Your task to perform on an android device: turn on data saver in the chrome app Image 0: 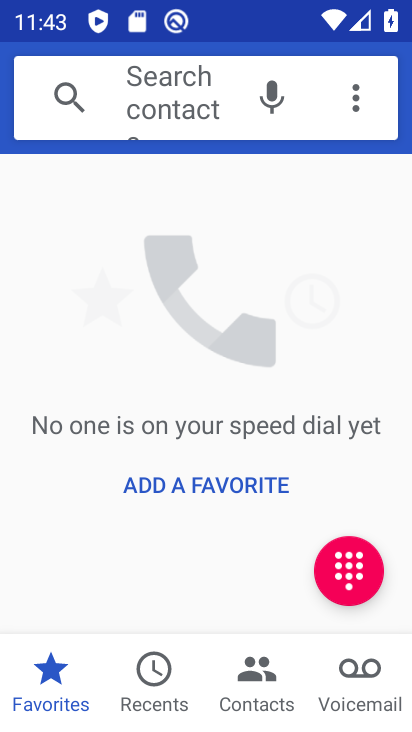
Step 0: click (284, 525)
Your task to perform on an android device: turn on data saver in the chrome app Image 1: 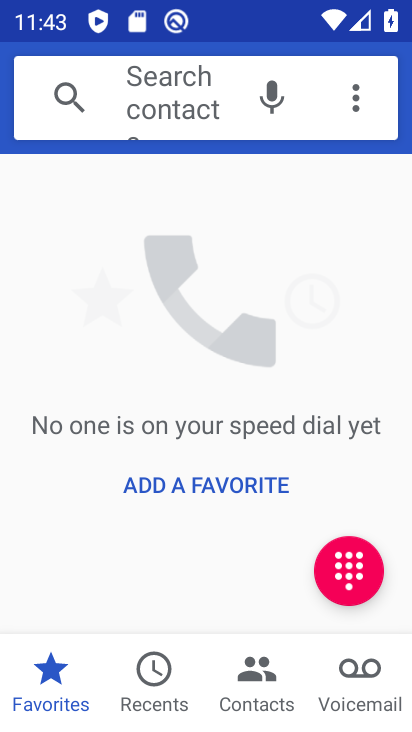
Step 1: press home button
Your task to perform on an android device: turn on data saver in the chrome app Image 2: 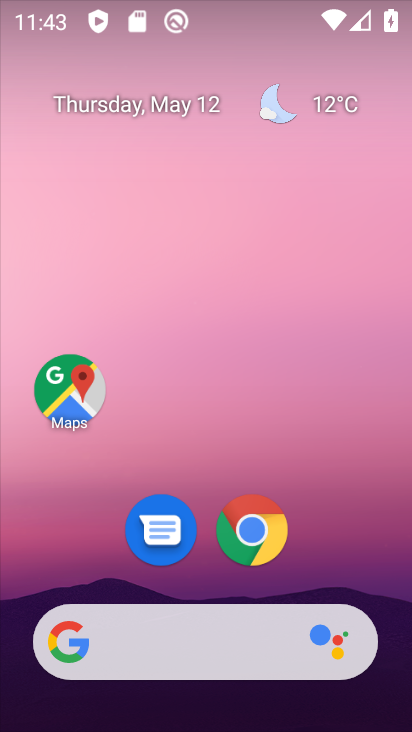
Step 2: click (249, 527)
Your task to perform on an android device: turn on data saver in the chrome app Image 3: 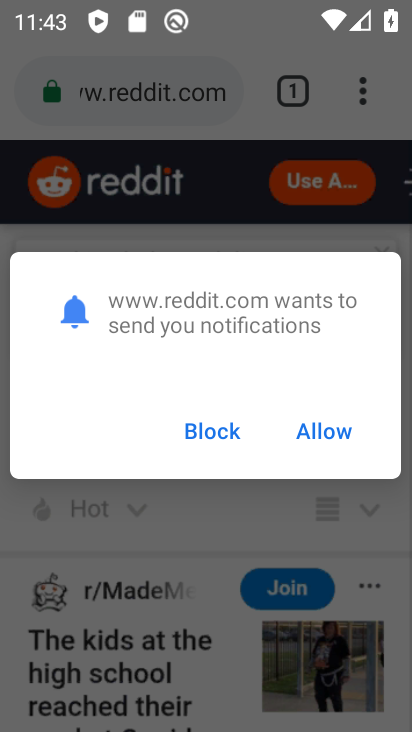
Step 3: click (343, 432)
Your task to perform on an android device: turn on data saver in the chrome app Image 4: 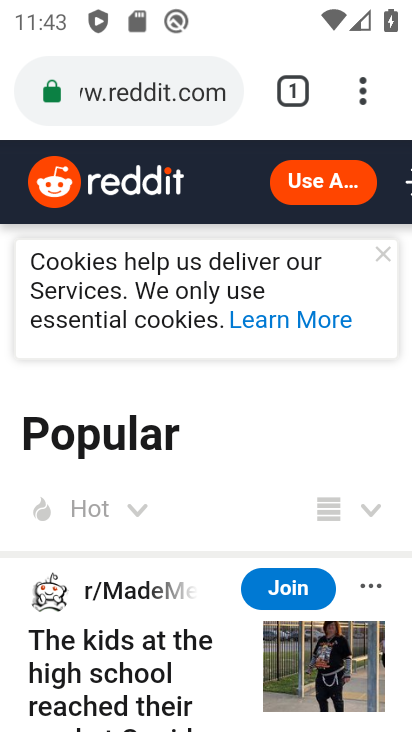
Step 4: click (369, 104)
Your task to perform on an android device: turn on data saver in the chrome app Image 5: 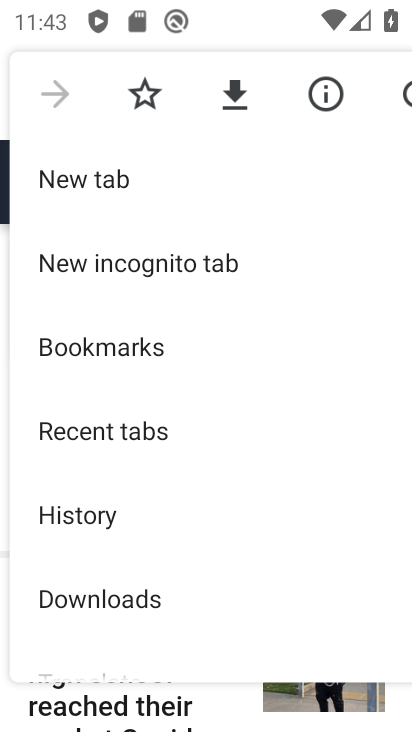
Step 5: drag from (258, 590) to (220, 221)
Your task to perform on an android device: turn on data saver in the chrome app Image 6: 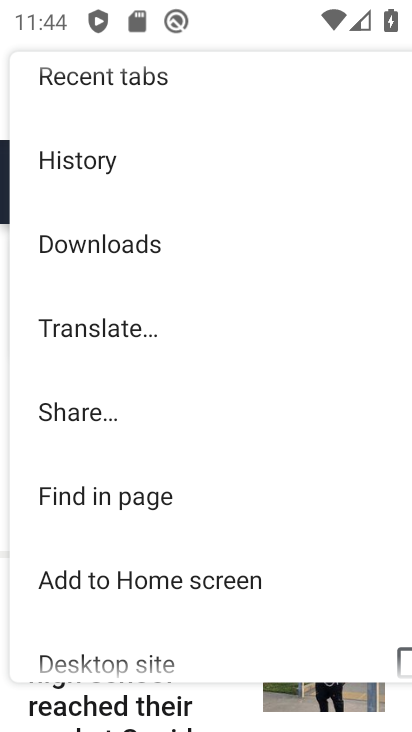
Step 6: drag from (228, 561) to (217, 126)
Your task to perform on an android device: turn on data saver in the chrome app Image 7: 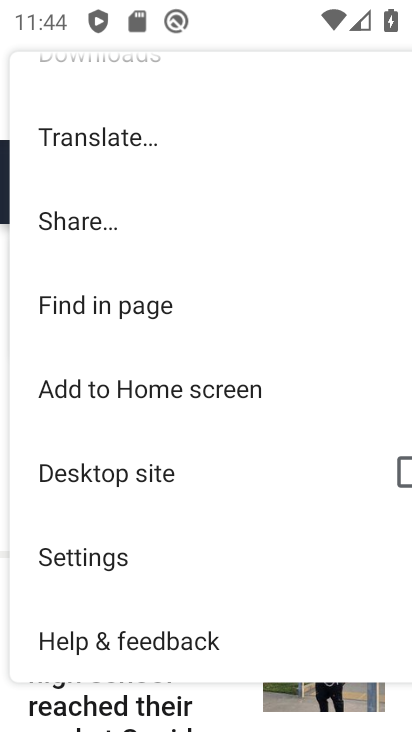
Step 7: click (98, 566)
Your task to perform on an android device: turn on data saver in the chrome app Image 8: 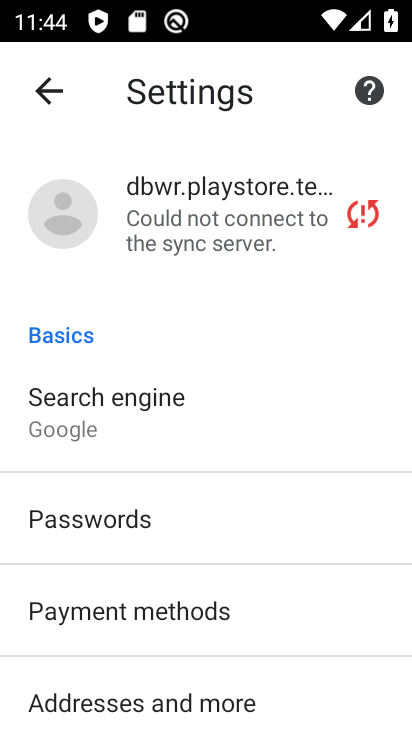
Step 8: drag from (304, 638) to (220, 220)
Your task to perform on an android device: turn on data saver in the chrome app Image 9: 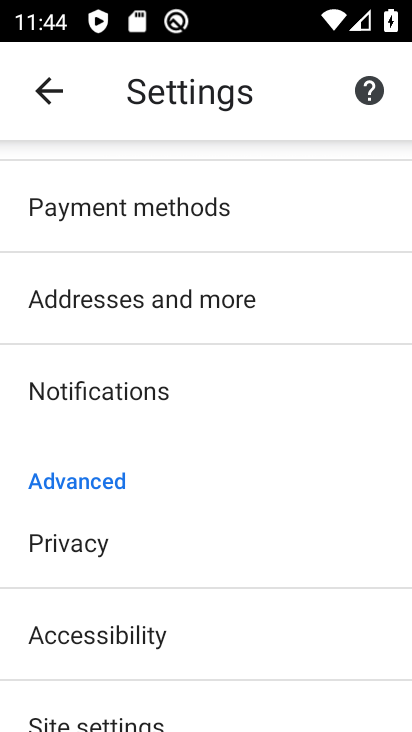
Step 9: drag from (266, 501) to (207, 230)
Your task to perform on an android device: turn on data saver in the chrome app Image 10: 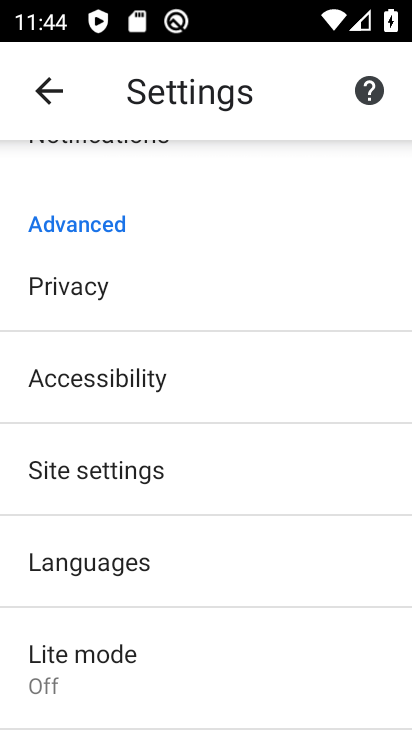
Step 10: drag from (269, 645) to (223, 347)
Your task to perform on an android device: turn on data saver in the chrome app Image 11: 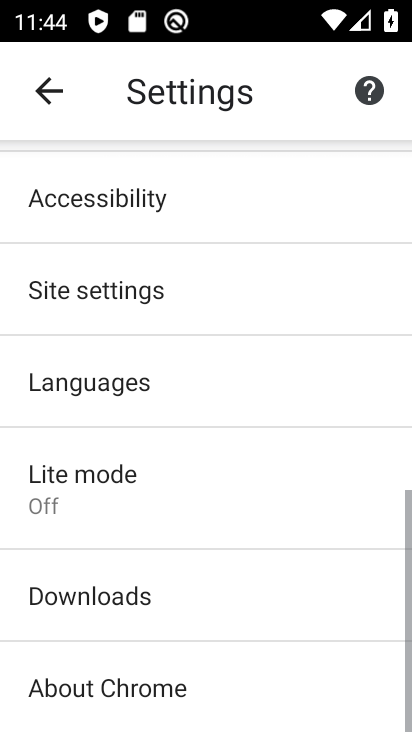
Step 11: click (185, 490)
Your task to perform on an android device: turn on data saver in the chrome app Image 12: 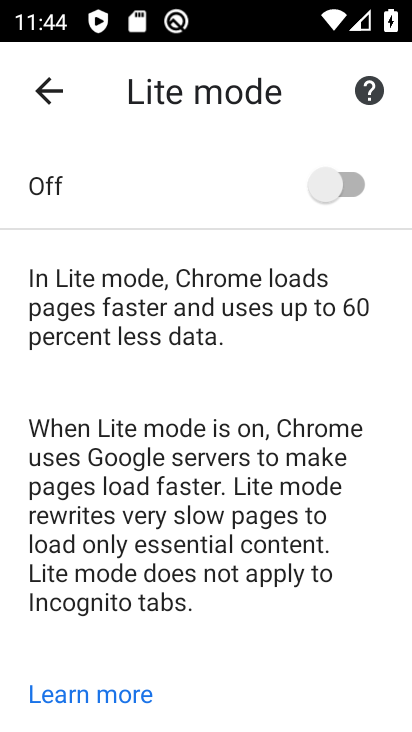
Step 12: click (350, 183)
Your task to perform on an android device: turn on data saver in the chrome app Image 13: 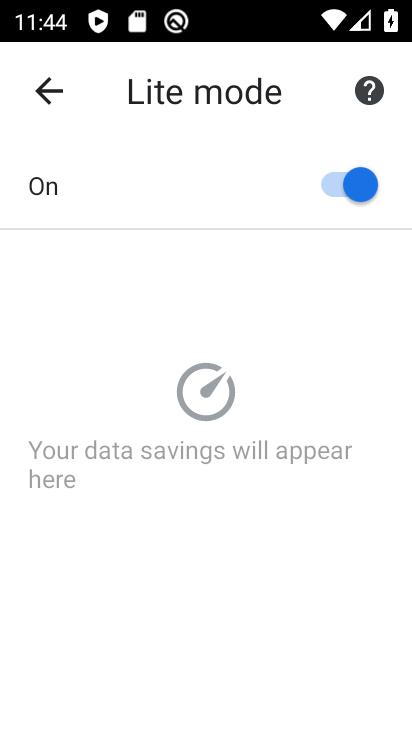
Step 13: task complete